Your task to perform on an android device: Play the last video I watched on Youtube Image 0: 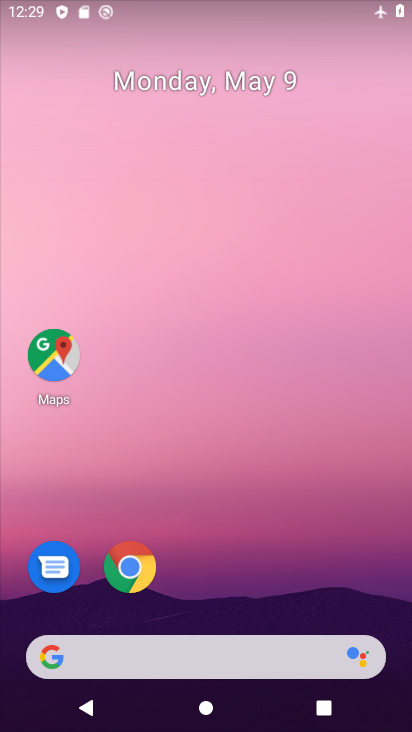
Step 0: drag from (254, 596) to (329, 2)
Your task to perform on an android device: Play the last video I watched on Youtube Image 1: 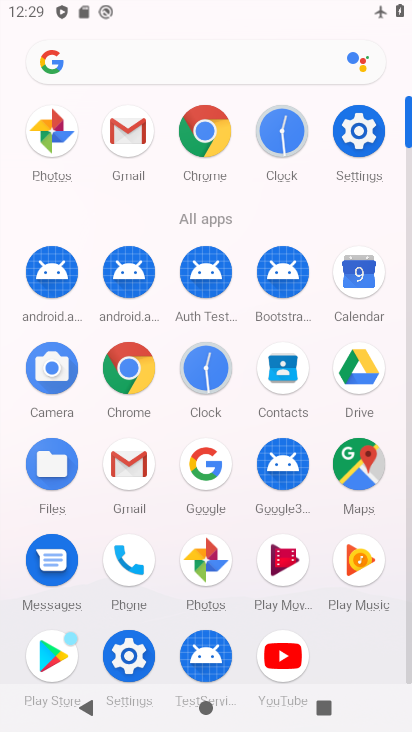
Step 1: click (284, 653)
Your task to perform on an android device: Play the last video I watched on Youtube Image 2: 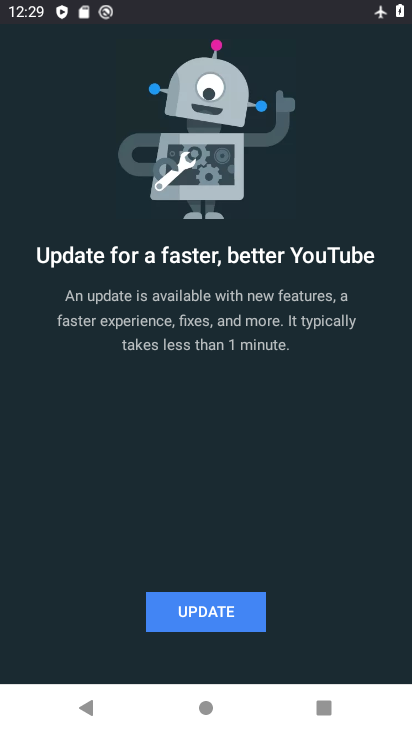
Step 2: click (200, 618)
Your task to perform on an android device: Play the last video I watched on Youtube Image 3: 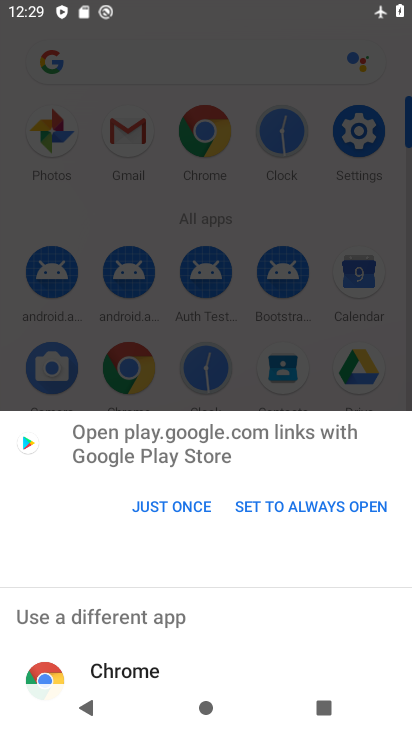
Step 3: click (198, 505)
Your task to perform on an android device: Play the last video I watched on Youtube Image 4: 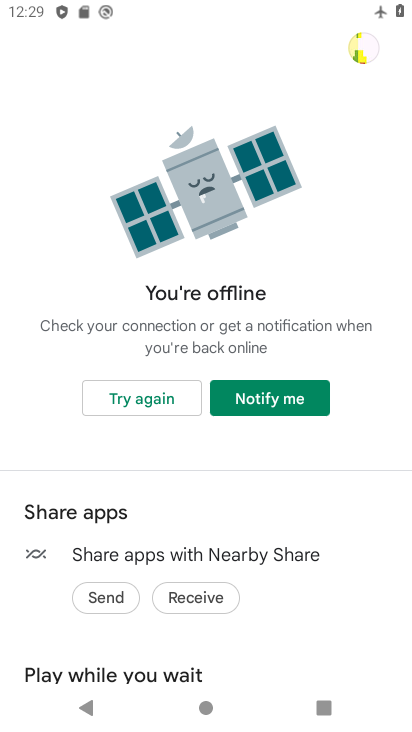
Step 4: click (160, 404)
Your task to perform on an android device: Play the last video I watched on Youtube Image 5: 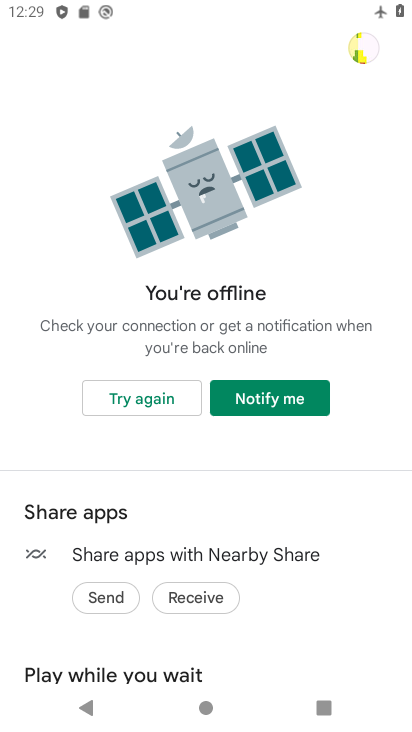
Step 5: click (160, 404)
Your task to perform on an android device: Play the last video I watched on Youtube Image 6: 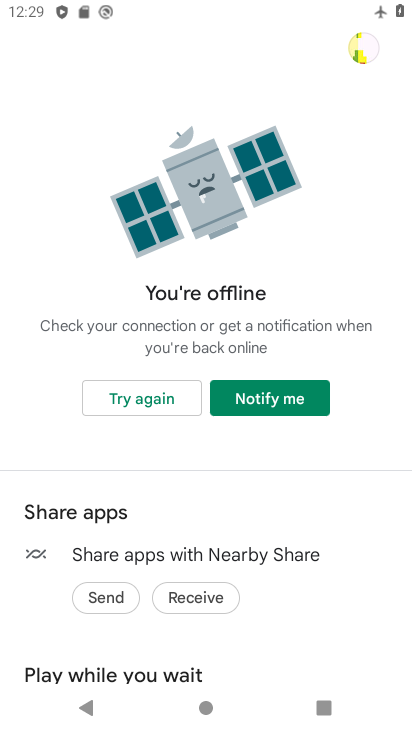
Step 6: task complete